Your task to perform on an android device: find snoozed emails in the gmail app Image 0: 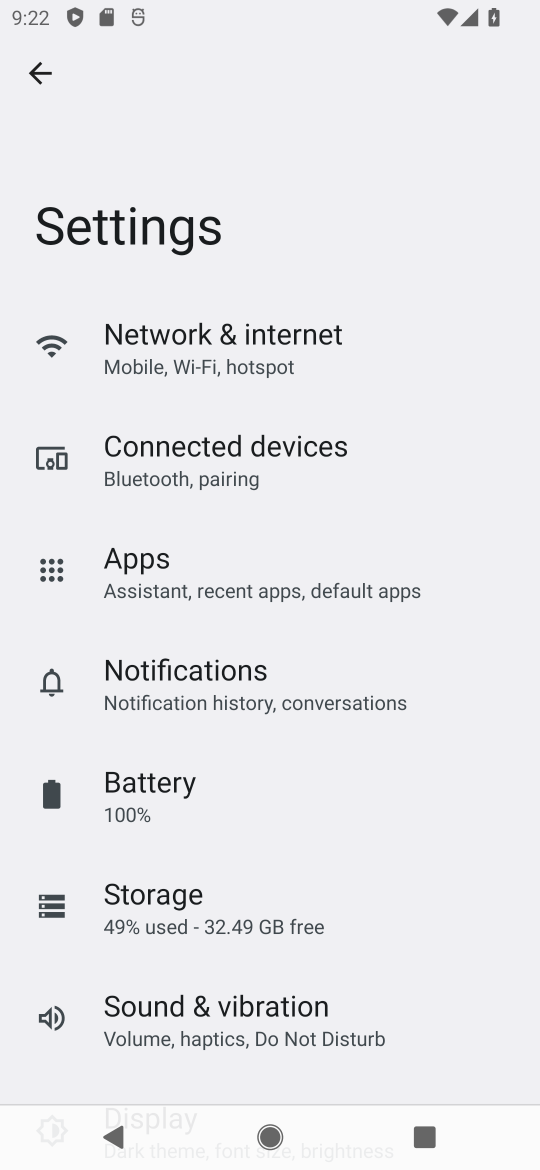
Step 0: press home button
Your task to perform on an android device: find snoozed emails in the gmail app Image 1: 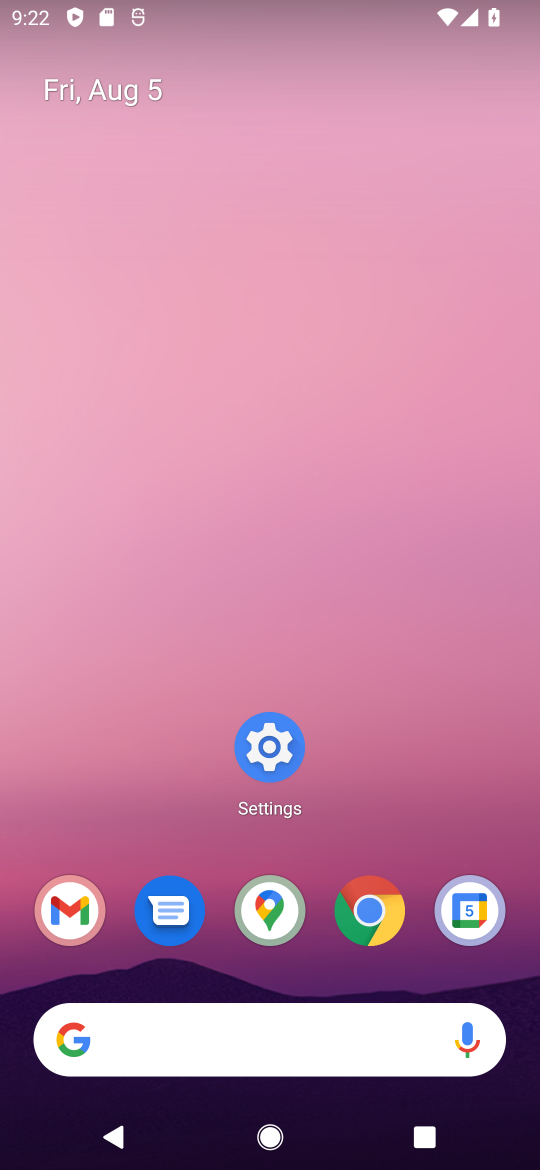
Step 1: click (69, 913)
Your task to perform on an android device: find snoozed emails in the gmail app Image 2: 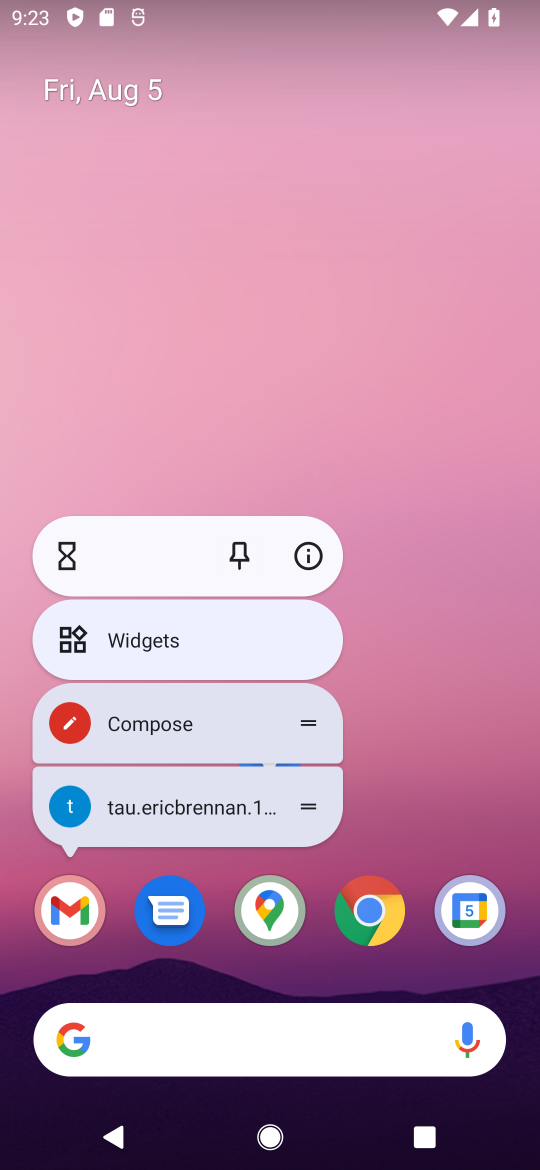
Step 2: click (69, 913)
Your task to perform on an android device: find snoozed emails in the gmail app Image 3: 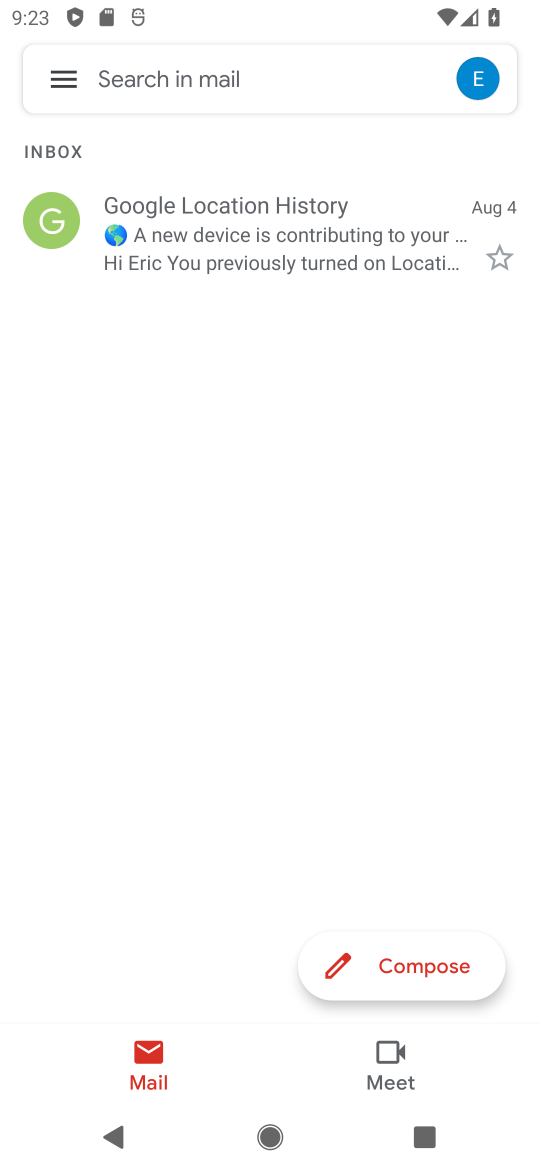
Step 3: click (65, 70)
Your task to perform on an android device: find snoozed emails in the gmail app Image 4: 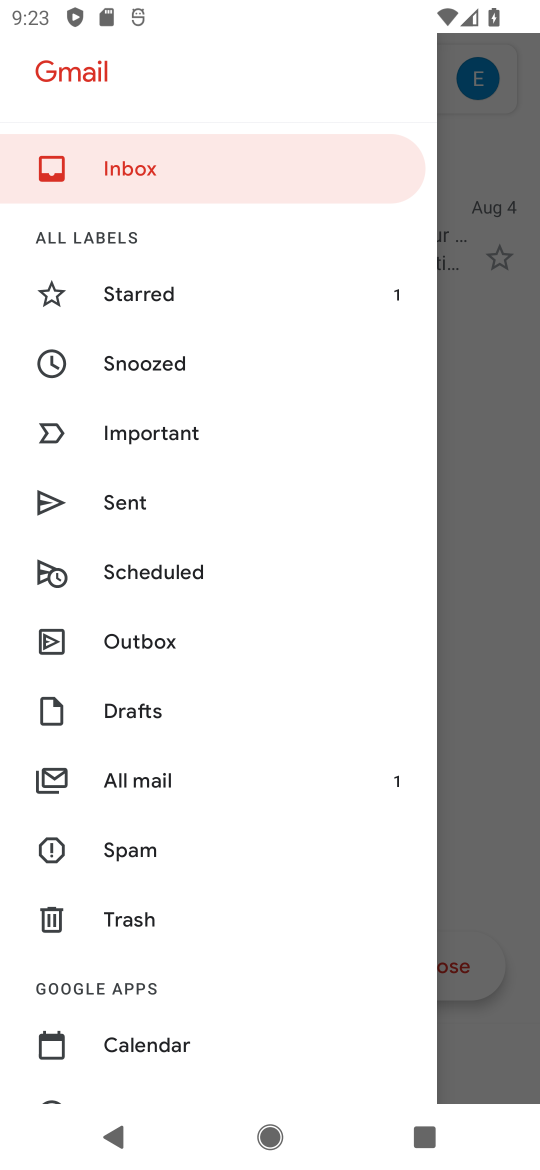
Step 4: click (143, 373)
Your task to perform on an android device: find snoozed emails in the gmail app Image 5: 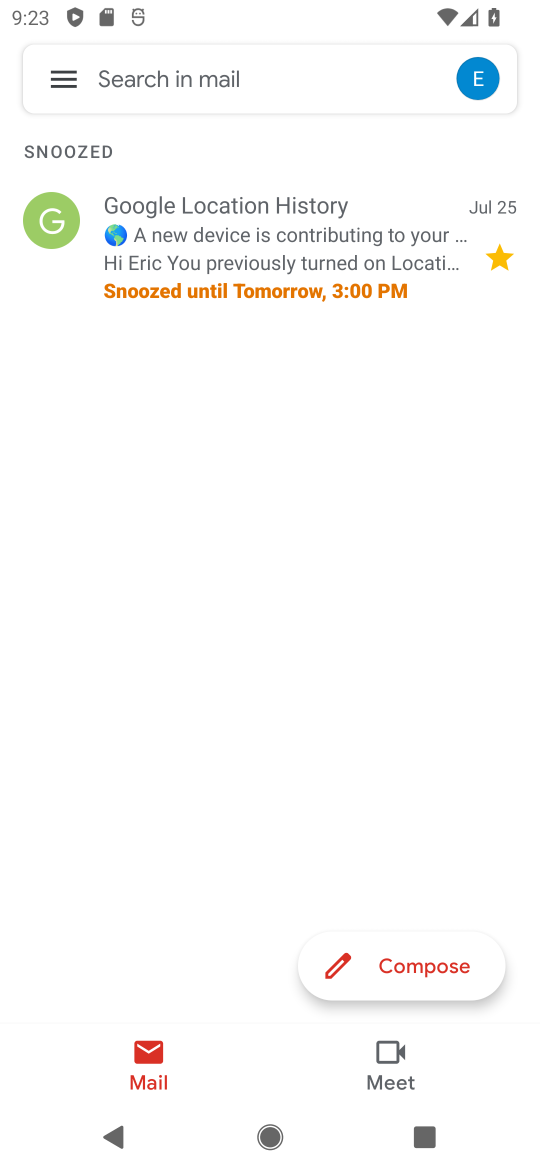
Step 5: task complete